Your task to perform on an android device: Go to calendar. Show me events next week Image 0: 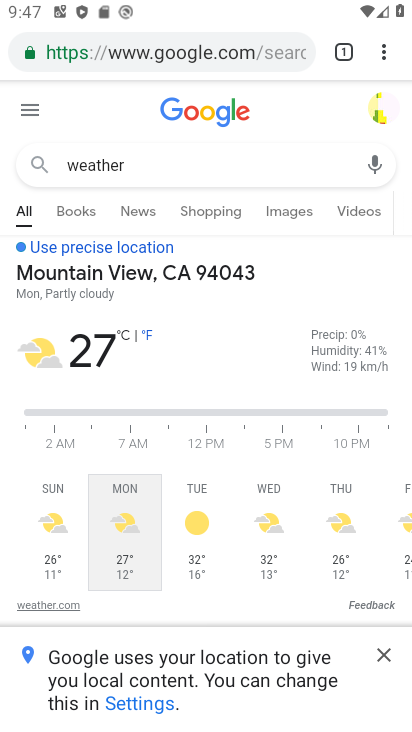
Step 0: press home button
Your task to perform on an android device: Go to calendar. Show me events next week Image 1: 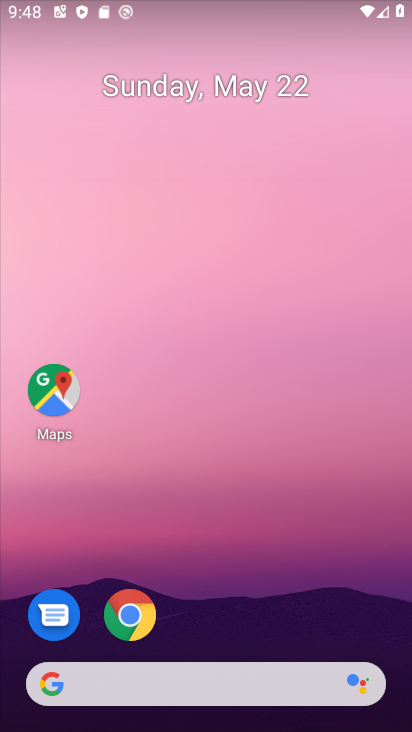
Step 1: drag from (250, 593) to (326, 140)
Your task to perform on an android device: Go to calendar. Show me events next week Image 2: 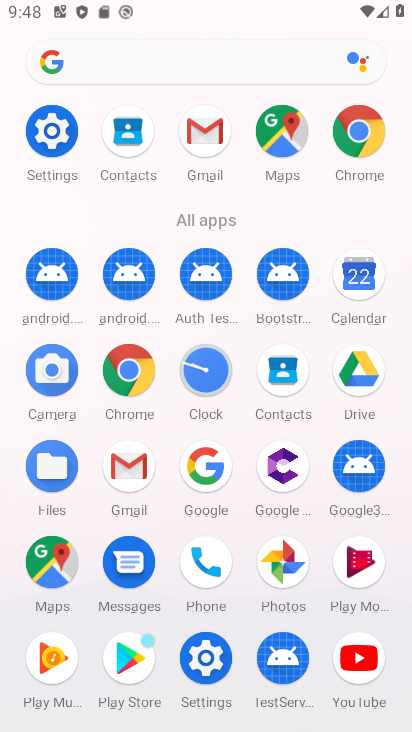
Step 2: click (357, 282)
Your task to perform on an android device: Go to calendar. Show me events next week Image 3: 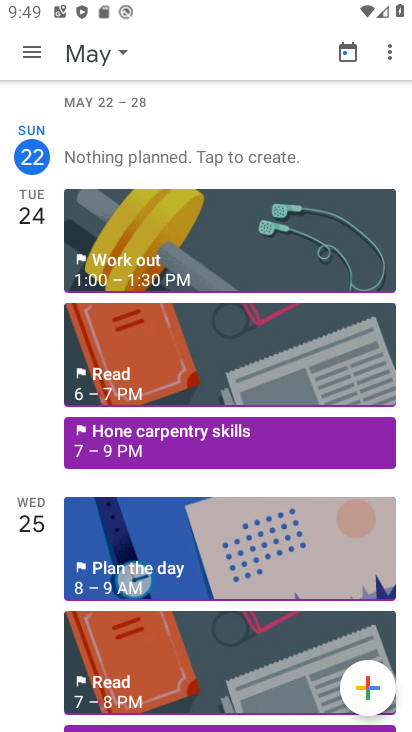
Step 3: click (75, 55)
Your task to perform on an android device: Go to calendar. Show me events next week Image 4: 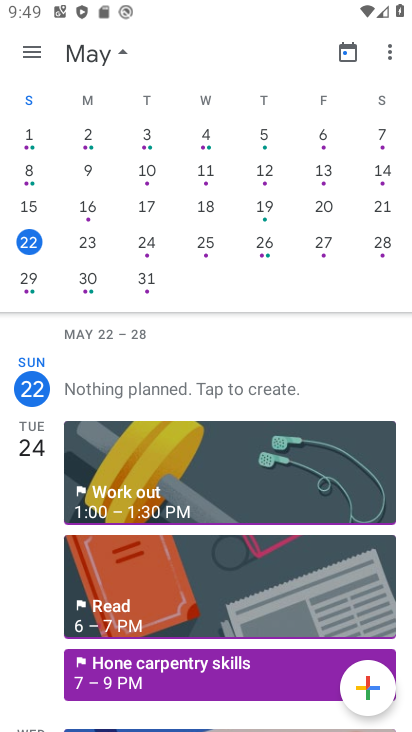
Step 4: click (27, 284)
Your task to perform on an android device: Go to calendar. Show me events next week Image 5: 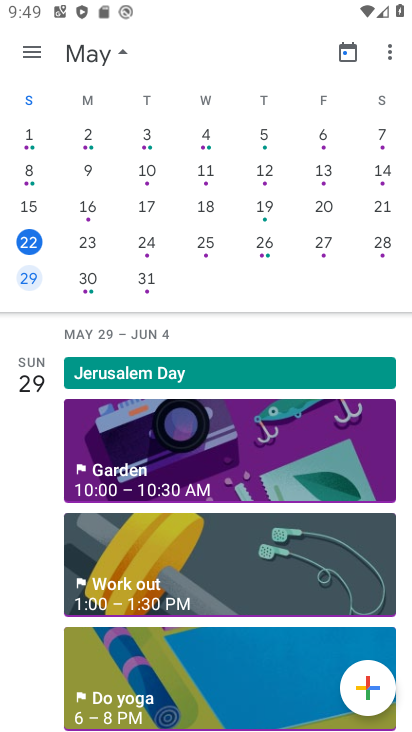
Step 5: click (40, 57)
Your task to perform on an android device: Go to calendar. Show me events next week Image 6: 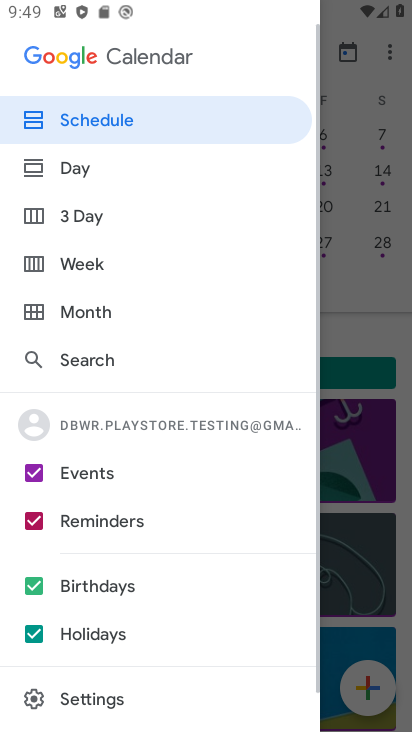
Step 6: click (71, 256)
Your task to perform on an android device: Go to calendar. Show me events next week Image 7: 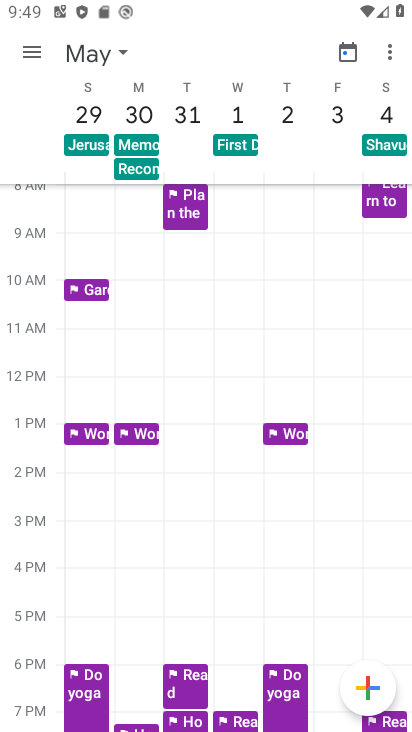
Step 7: task complete